Your task to perform on an android device: Go to wifi settings Image 0: 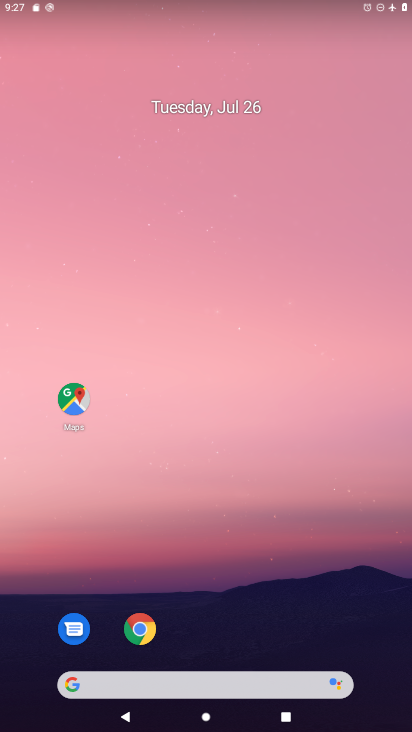
Step 0: drag from (226, 652) to (238, 141)
Your task to perform on an android device: Go to wifi settings Image 1: 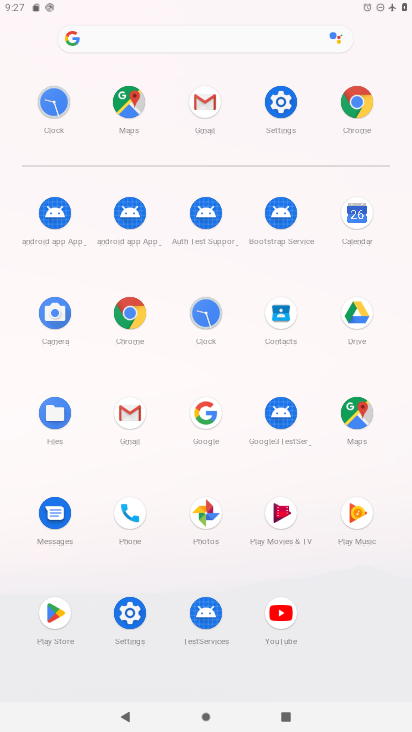
Step 1: click (293, 101)
Your task to perform on an android device: Go to wifi settings Image 2: 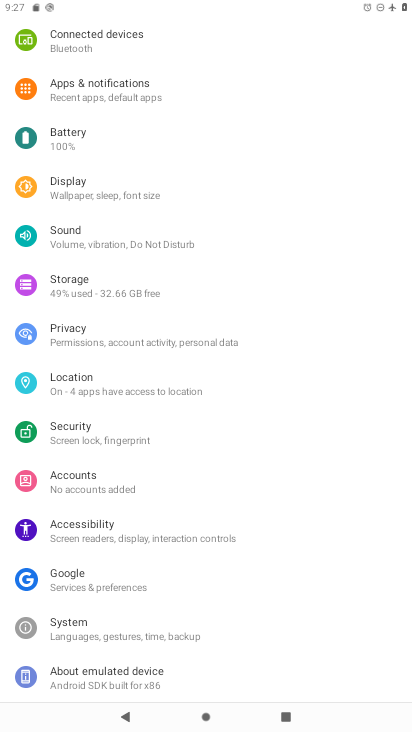
Step 2: drag from (231, 96) to (243, 519)
Your task to perform on an android device: Go to wifi settings Image 3: 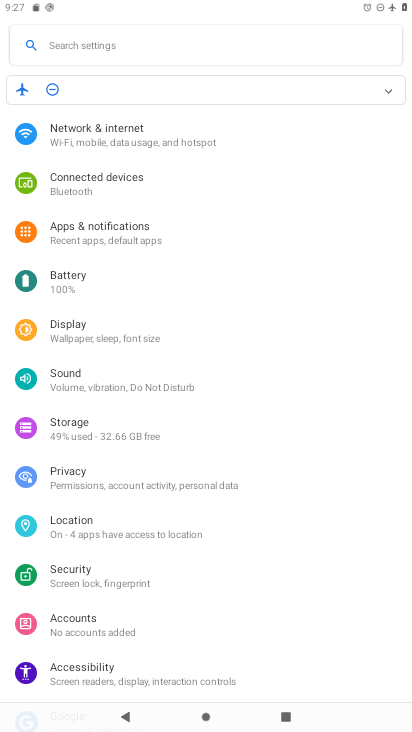
Step 3: click (87, 131)
Your task to perform on an android device: Go to wifi settings Image 4: 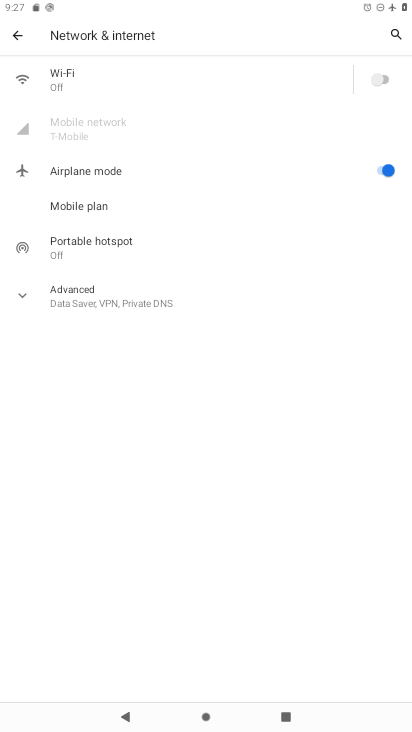
Step 4: click (97, 67)
Your task to perform on an android device: Go to wifi settings Image 5: 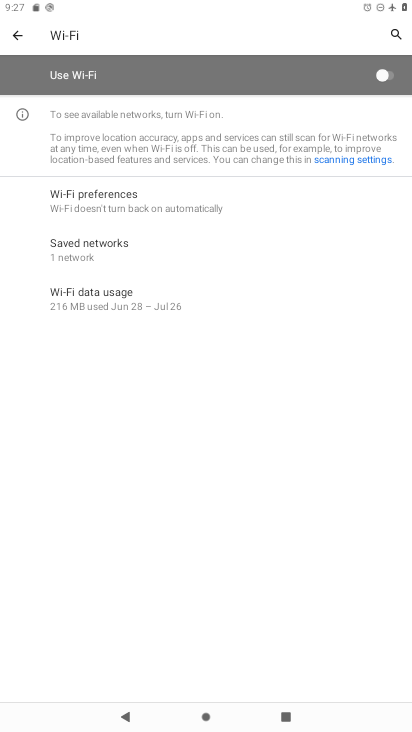
Step 5: task complete